Your task to perform on an android device: Do I have any events tomorrow? Image 0: 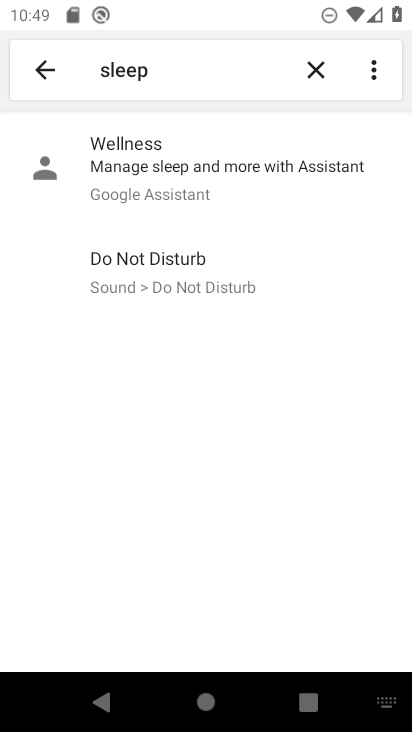
Step 0: press home button
Your task to perform on an android device: Do I have any events tomorrow? Image 1: 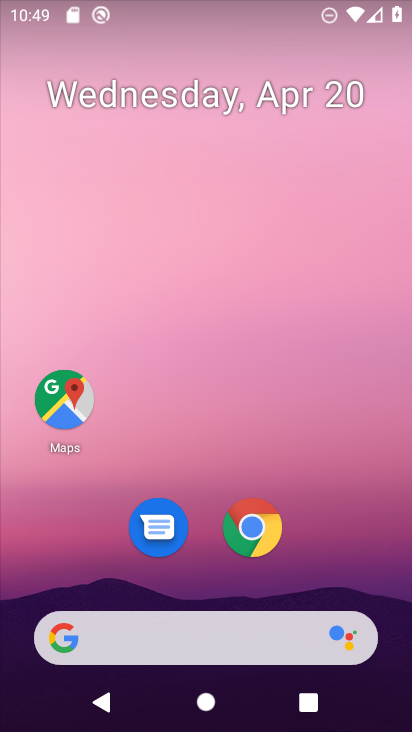
Step 1: drag from (266, 592) to (337, 0)
Your task to perform on an android device: Do I have any events tomorrow? Image 2: 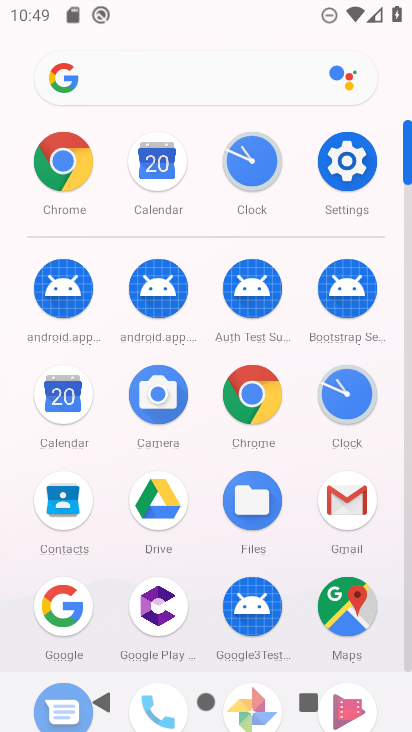
Step 2: click (66, 393)
Your task to perform on an android device: Do I have any events tomorrow? Image 3: 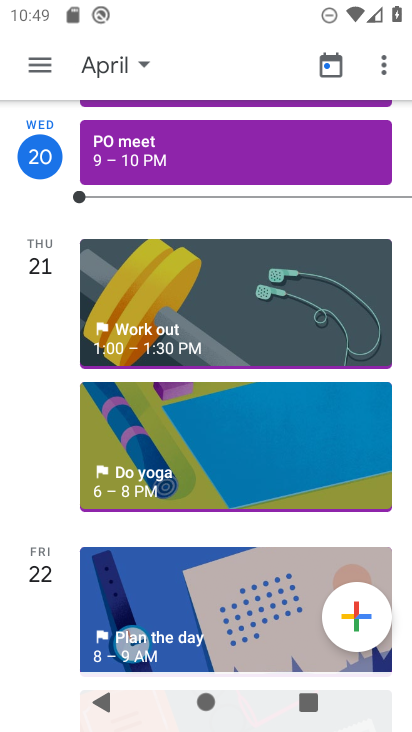
Step 3: click (43, 64)
Your task to perform on an android device: Do I have any events tomorrow? Image 4: 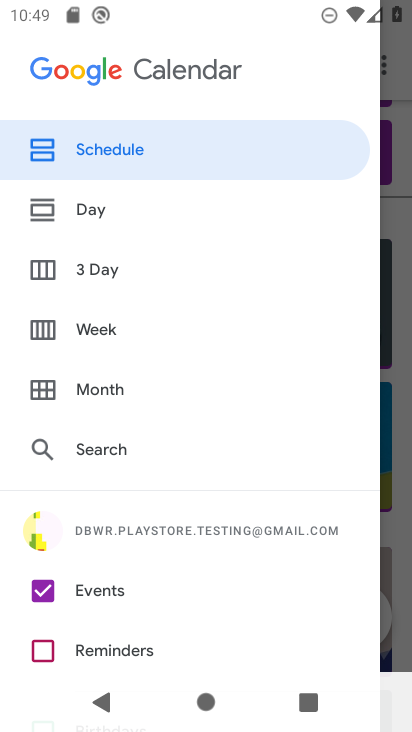
Step 4: click (109, 269)
Your task to perform on an android device: Do I have any events tomorrow? Image 5: 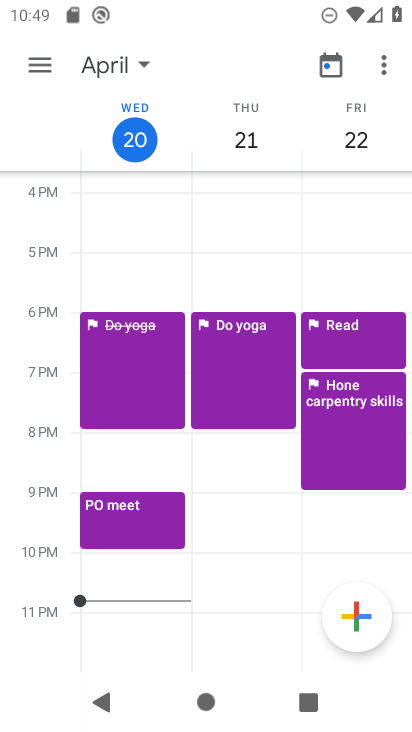
Step 5: click (24, 57)
Your task to perform on an android device: Do I have any events tomorrow? Image 6: 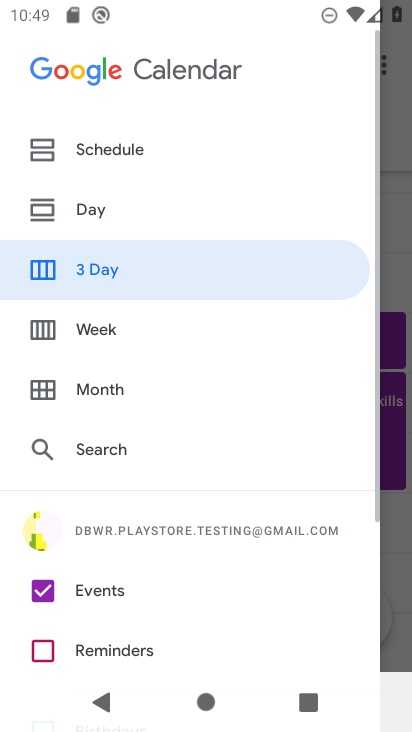
Step 6: drag from (125, 567) to (148, 308)
Your task to perform on an android device: Do I have any events tomorrow? Image 7: 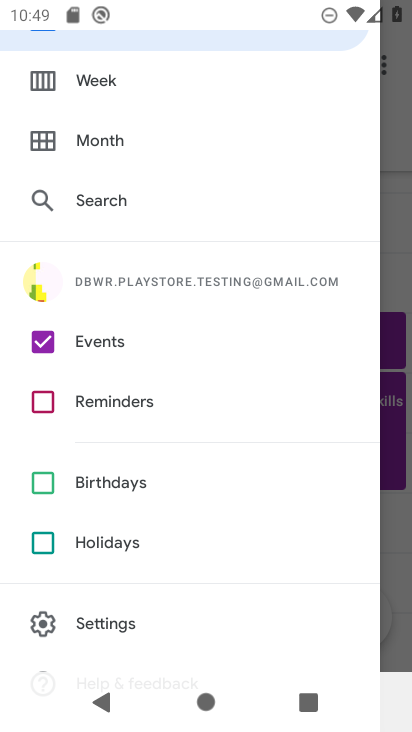
Step 7: click (131, 38)
Your task to perform on an android device: Do I have any events tomorrow? Image 8: 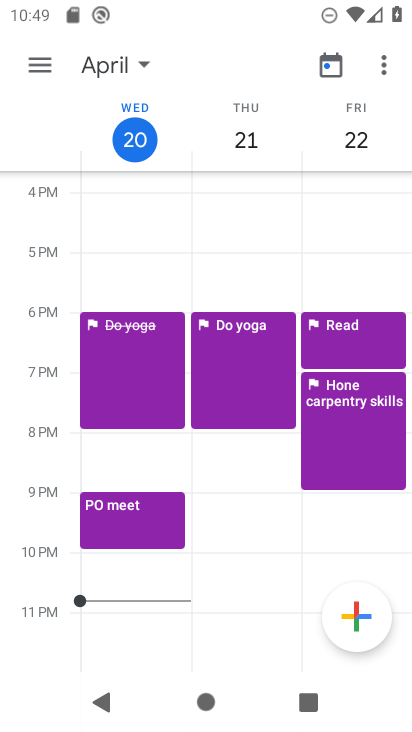
Step 8: task complete